Your task to perform on an android device: Go to Google Image 0: 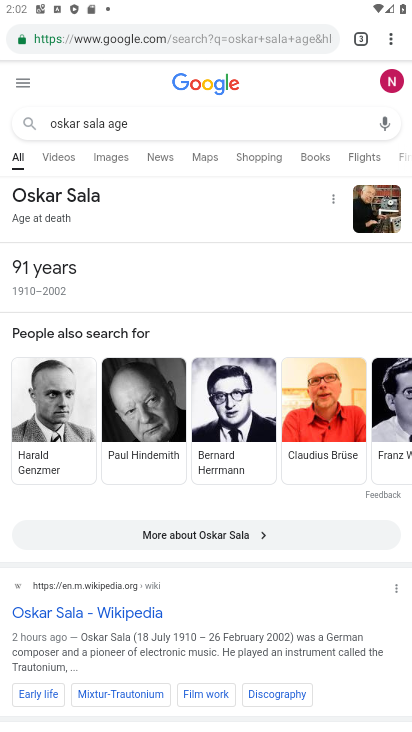
Step 0: task complete